Your task to perform on an android device: turn off notifications in google photos Image 0: 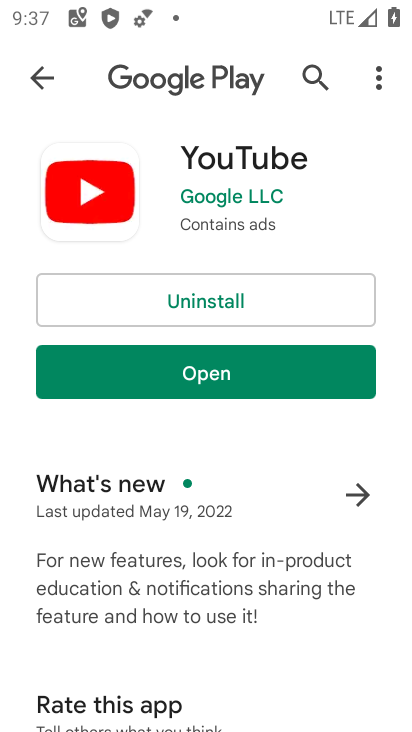
Step 0: press home button
Your task to perform on an android device: turn off notifications in google photos Image 1: 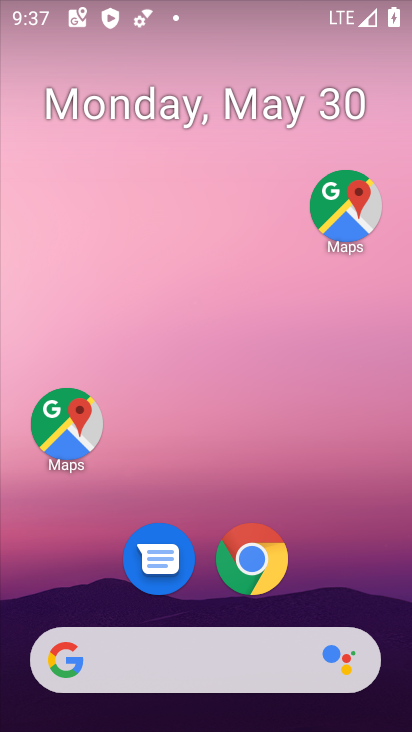
Step 1: drag from (314, 521) to (280, 115)
Your task to perform on an android device: turn off notifications in google photos Image 2: 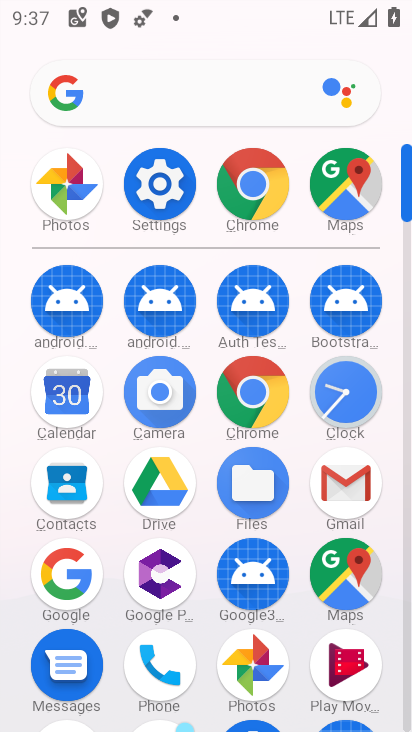
Step 2: click (238, 667)
Your task to perform on an android device: turn off notifications in google photos Image 3: 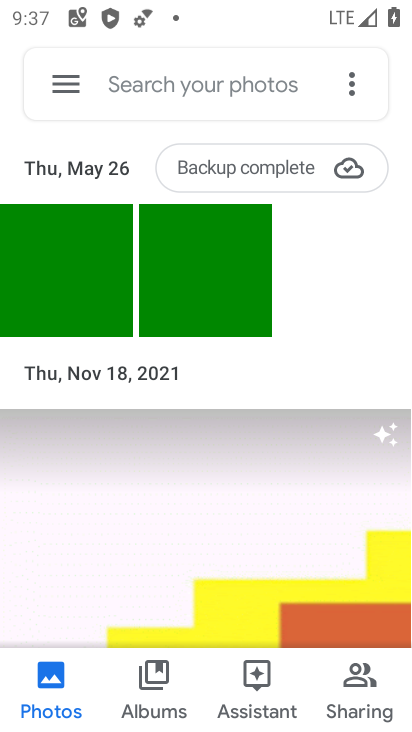
Step 3: click (54, 78)
Your task to perform on an android device: turn off notifications in google photos Image 4: 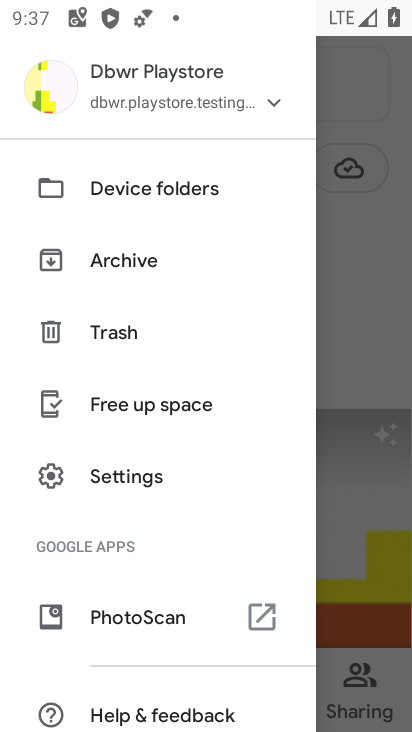
Step 4: drag from (151, 564) to (245, 121)
Your task to perform on an android device: turn off notifications in google photos Image 5: 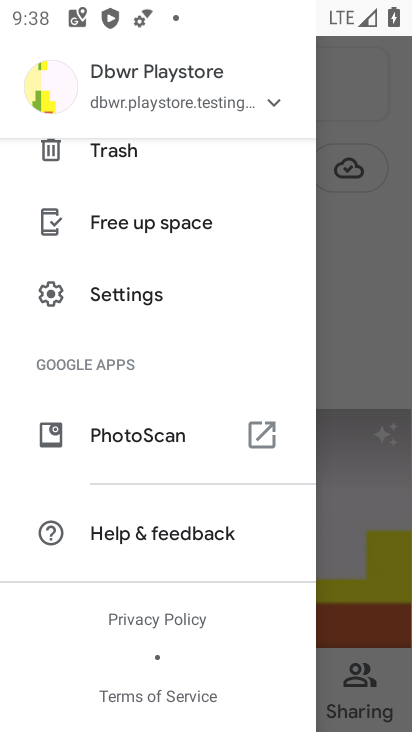
Step 5: click (138, 304)
Your task to perform on an android device: turn off notifications in google photos Image 6: 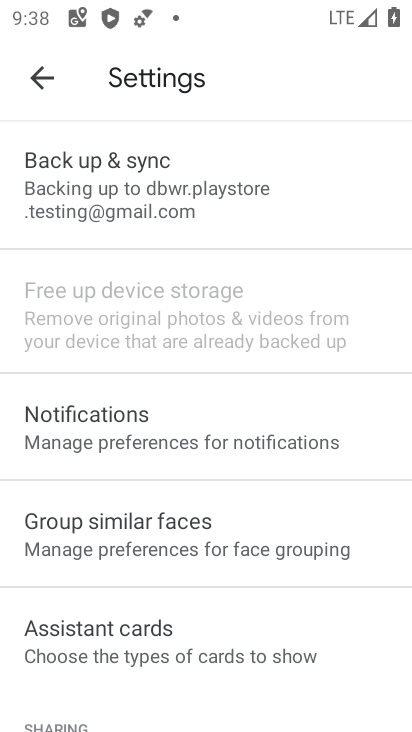
Step 6: click (199, 430)
Your task to perform on an android device: turn off notifications in google photos Image 7: 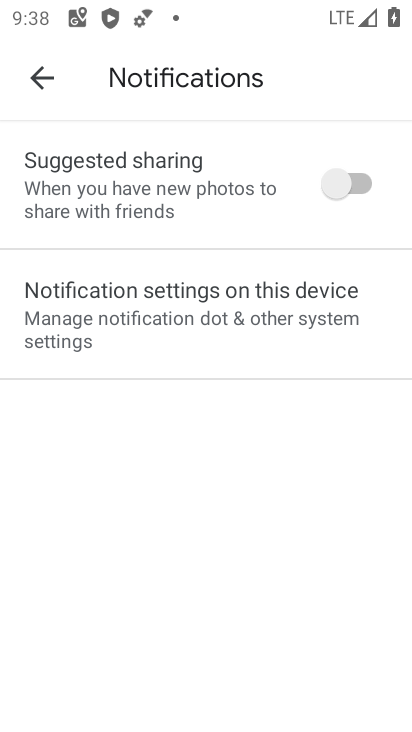
Step 7: click (161, 300)
Your task to perform on an android device: turn off notifications in google photos Image 8: 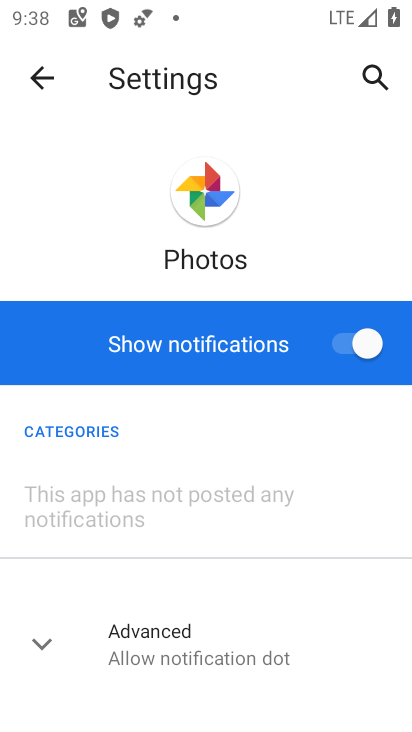
Step 8: click (356, 344)
Your task to perform on an android device: turn off notifications in google photos Image 9: 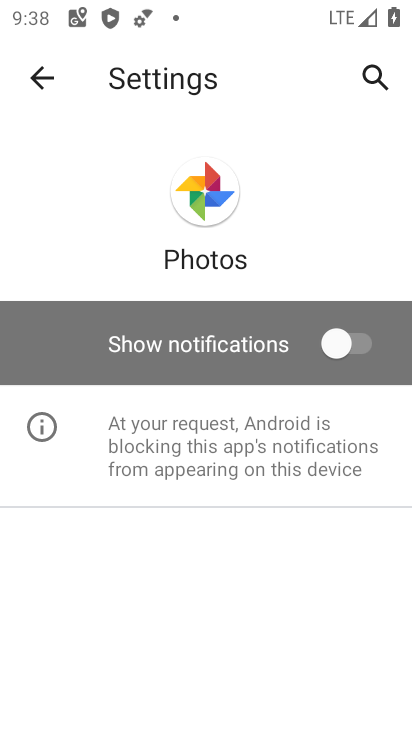
Step 9: task complete